Your task to perform on an android device: Go to privacy settings Image 0: 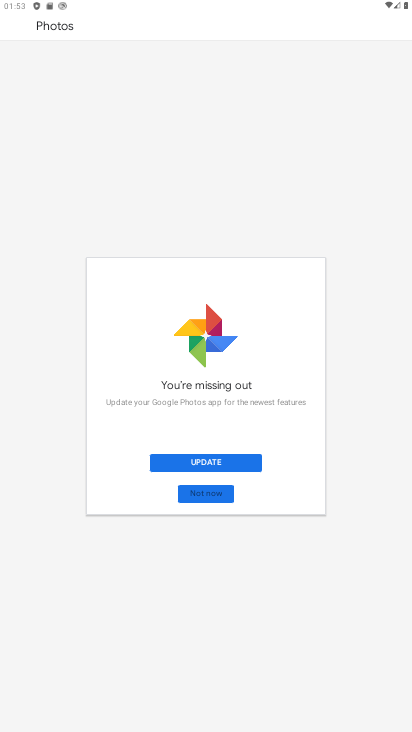
Step 0: press home button
Your task to perform on an android device: Go to privacy settings Image 1: 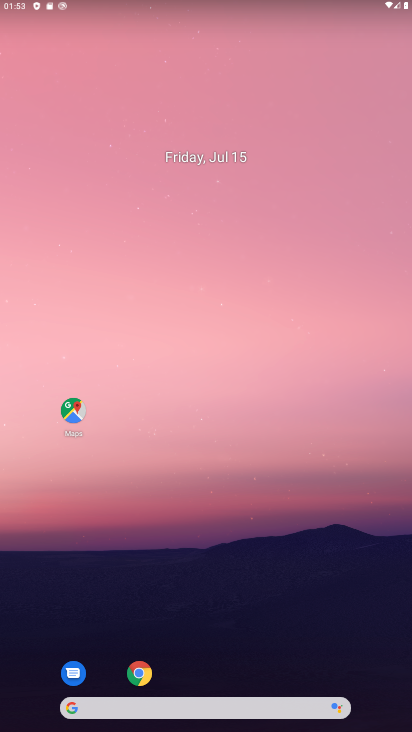
Step 1: drag from (298, 611) to (342, 0)
Your task to perform on an android device: Go to privacy settings Image 2: 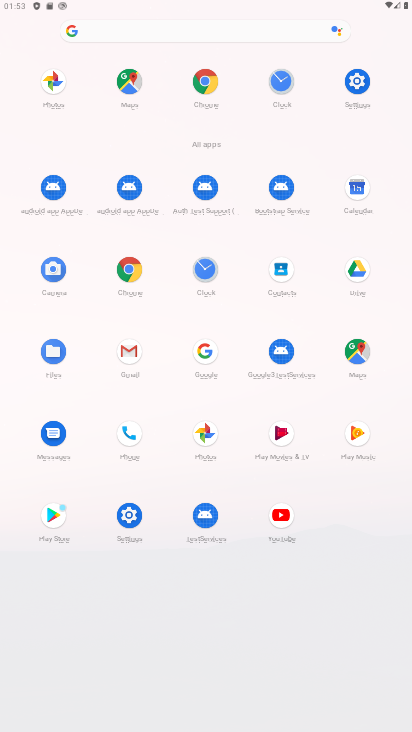
Step 2: click (128, 517)
Your task to perform on an android device: Go to privacy settings Image 3: 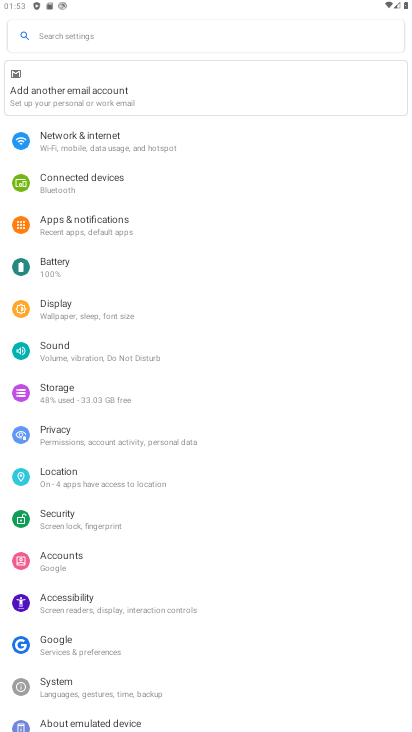
Step 3: click (88, 437)
Your task to perform on an android device: Go to privacy settings Image 4: 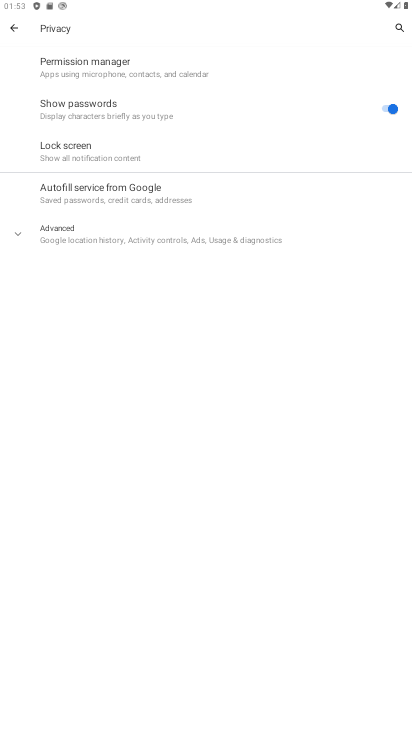
Step 4: task complete